Your task to perform on an android device: Check the weather Image 0: 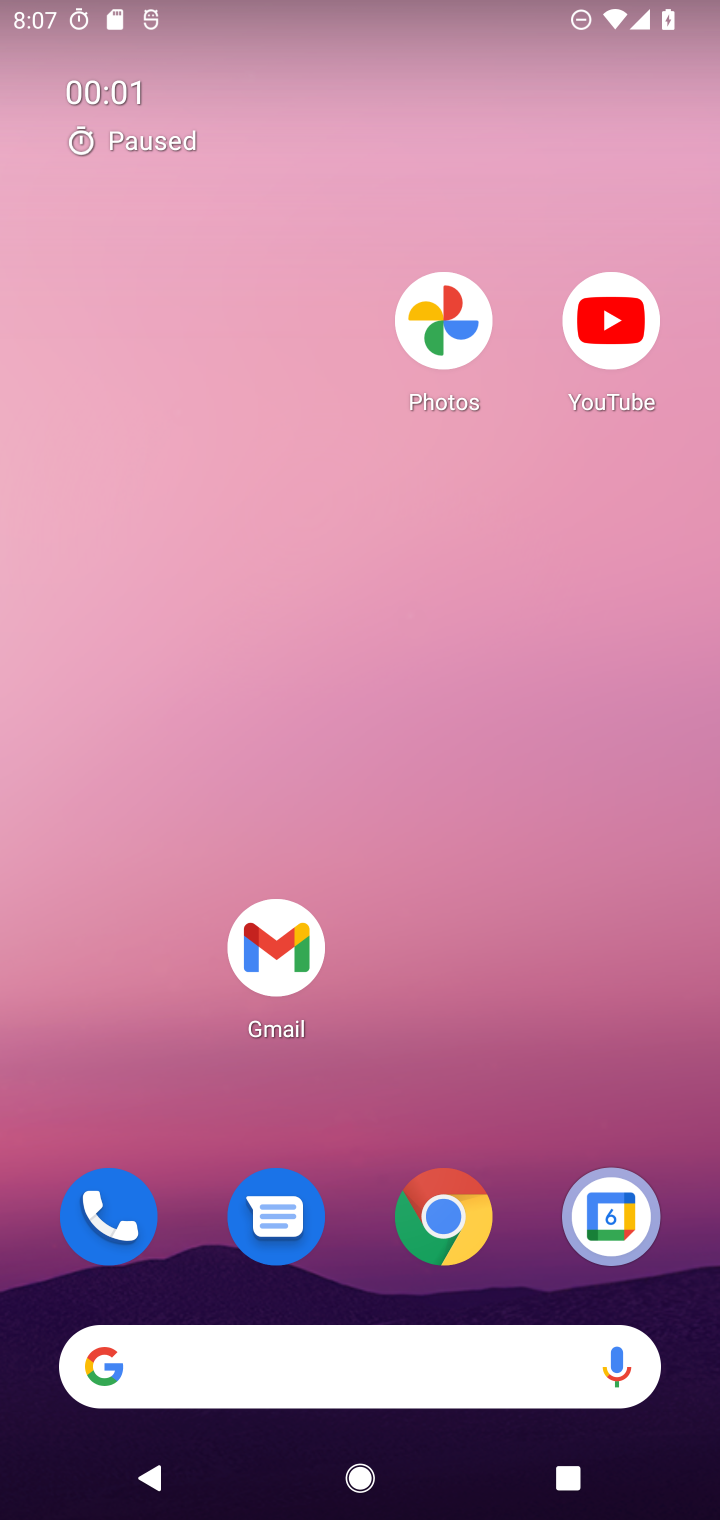
Step 0: drag from (399, 653) to (176, 8)
Your task to perform on an android device: Check the weather Image 1: 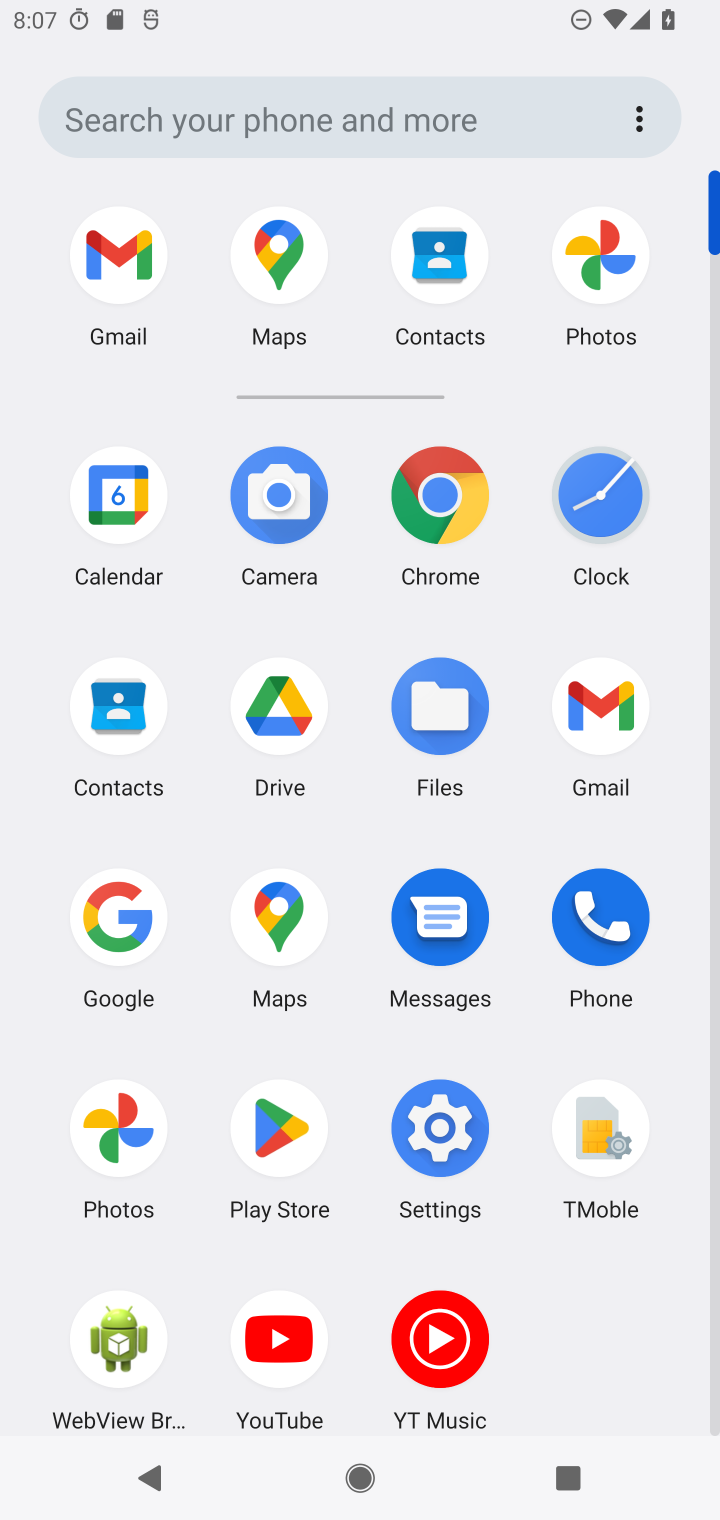
Step 1: click (447, 492)
Your task to perform on an android device: Check the weather Image 2: 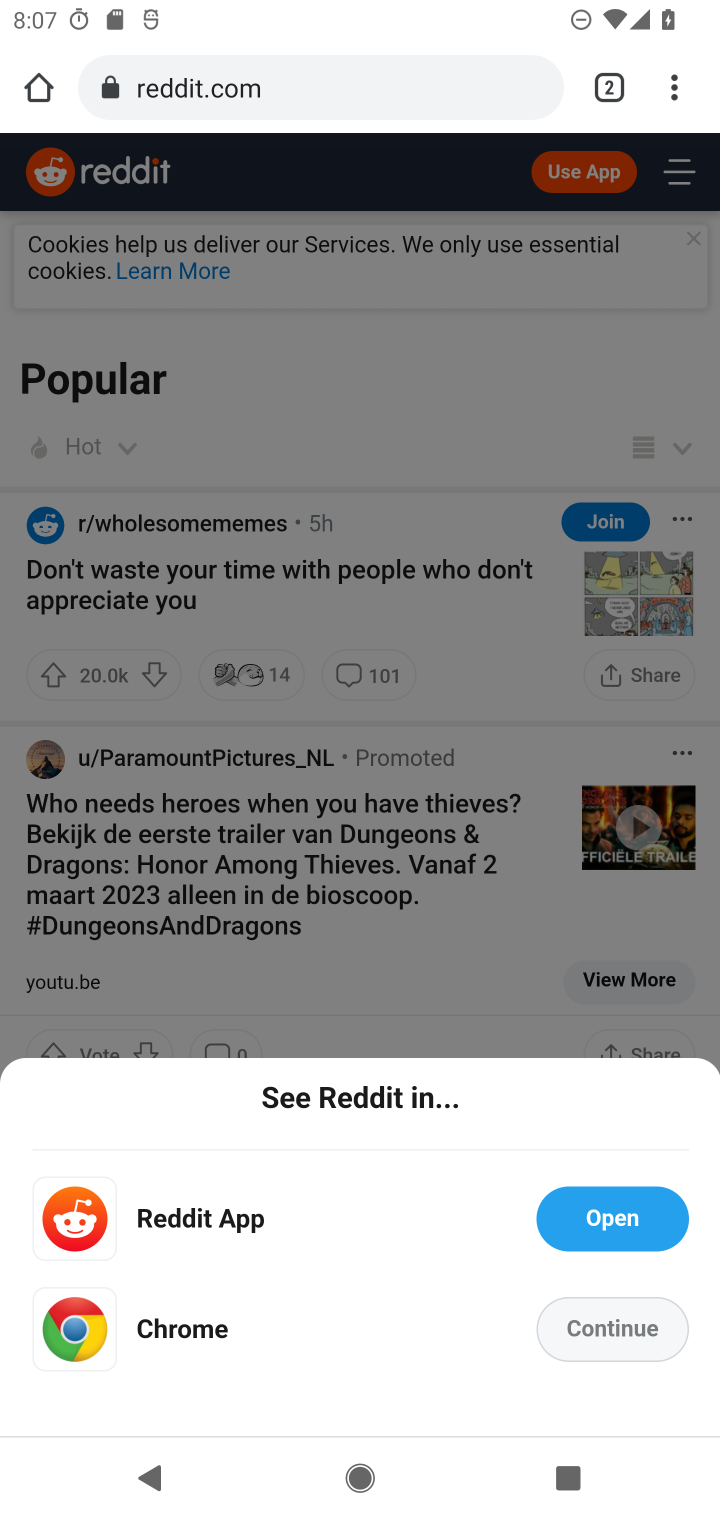
Step 2: click (330, 78)
Your task to perform on an android device: Check the weather Image 3: 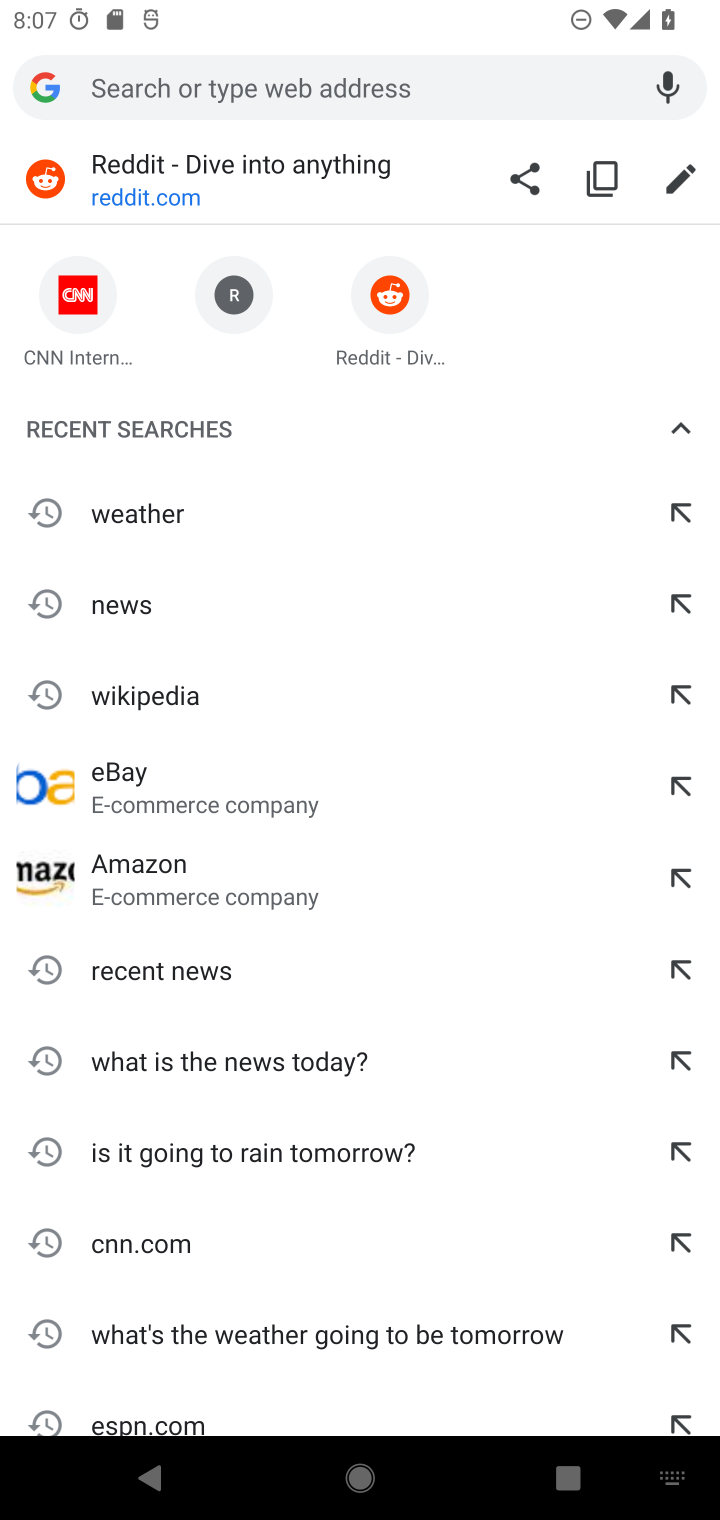
Step 3: click (125, 517)
Your task to perform on an android device: Check the weather Image 4: 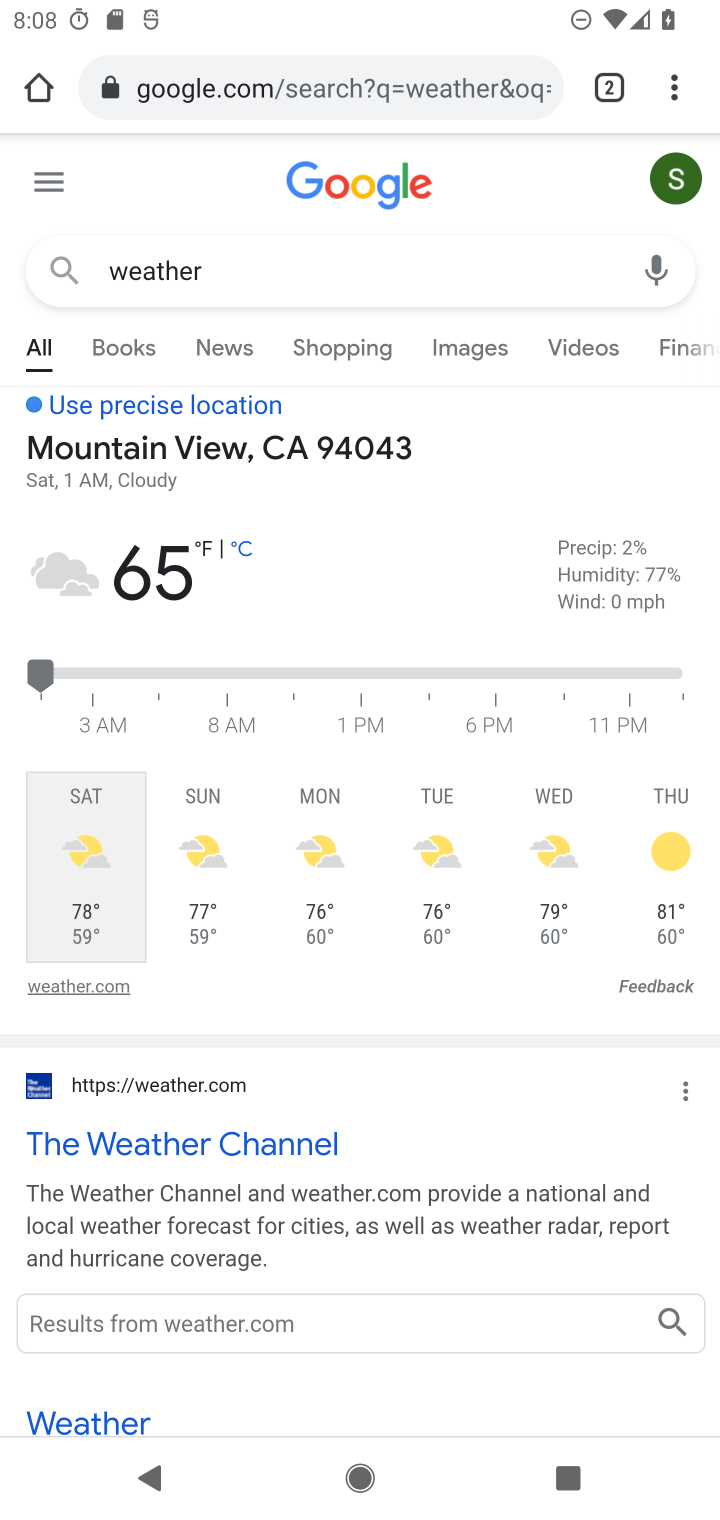
Step 4: task complete